Your task to perform on an android device: turn on javascript in the chrome app Image 0: 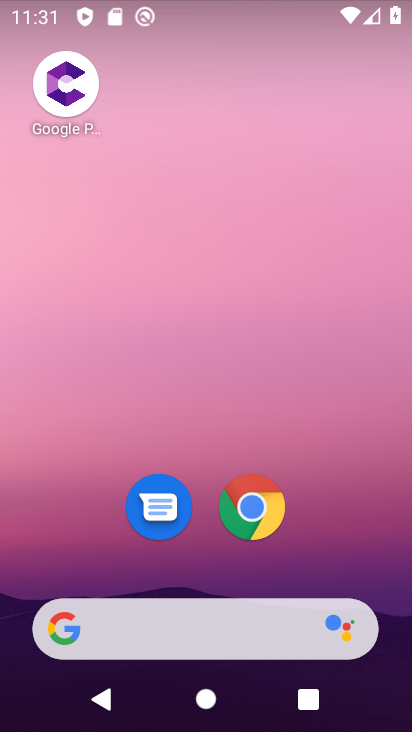
Step 0: click (254, 507)
Your task to perform on an android device: turn on javascript in the chrome app Image 1: 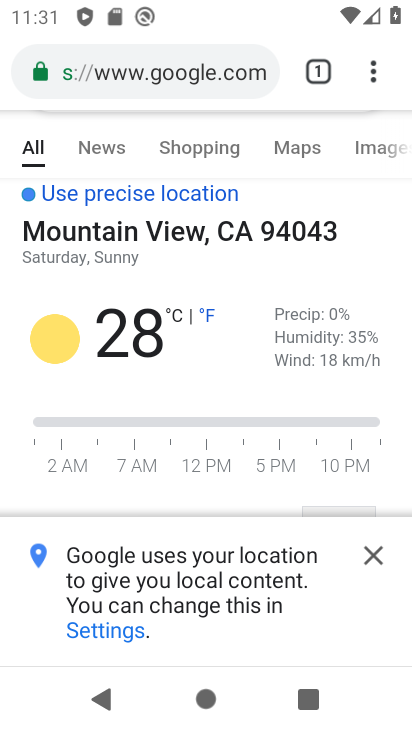
Step 1: drag from (373, 76) to (270, 502)
Your task to perform on an android device: turn on javascript in the chrome app Image 2: 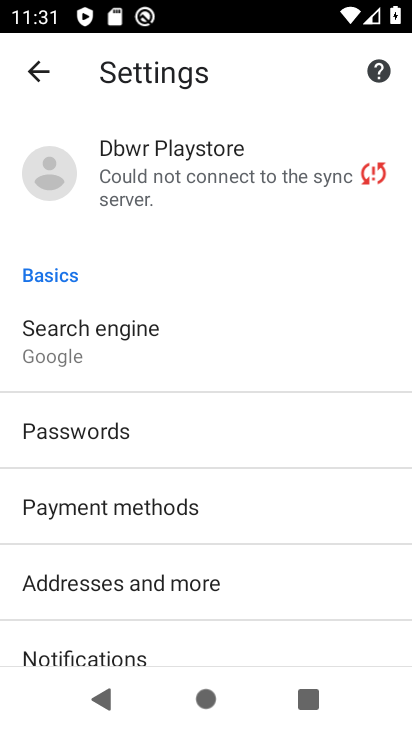
Step 2: drag from (242, 582) to (250, 271)
Your task to perform on an android device: turn on javascript in the chrome app Image 3: 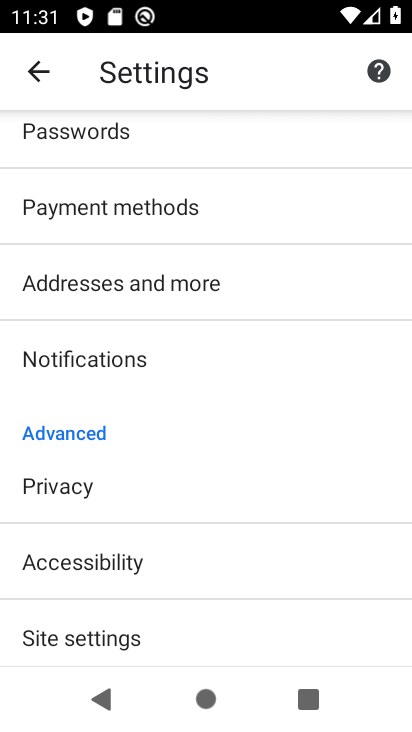
Step 3: click (178, 646)
Your task to perform on an android device: turn on javascript in the chrome app Image 4: 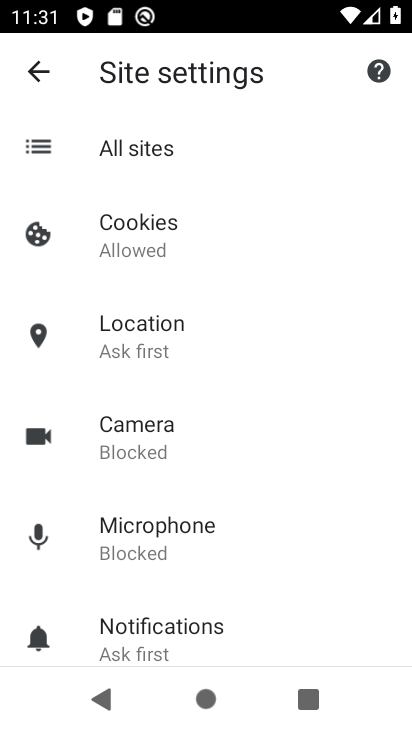
Step 4: drag from (233, 596) to (271, 178)
Your task to perform on an android device: turn on javascript in the chrome app Image 5: 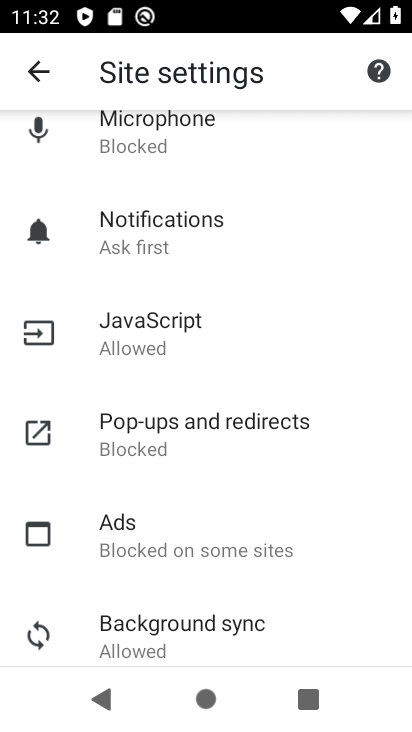
Step 5: click (247, 329)
Your task to perform on an android device: turn on javascript in the chrome app Image 6: 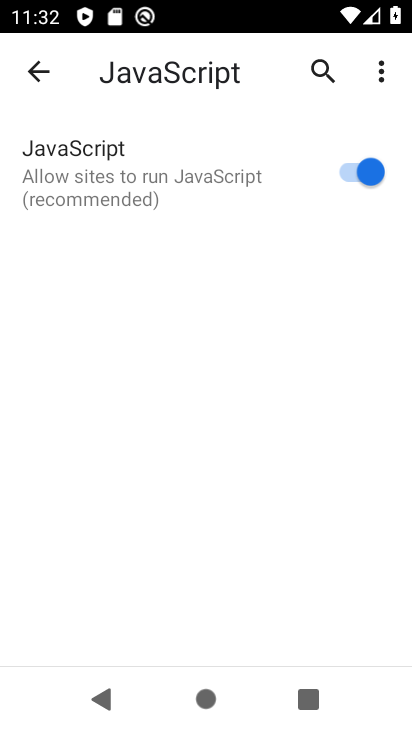
Step 6: task complete